Your task to perform on an android device: turn on bluetooth scan Image 0: 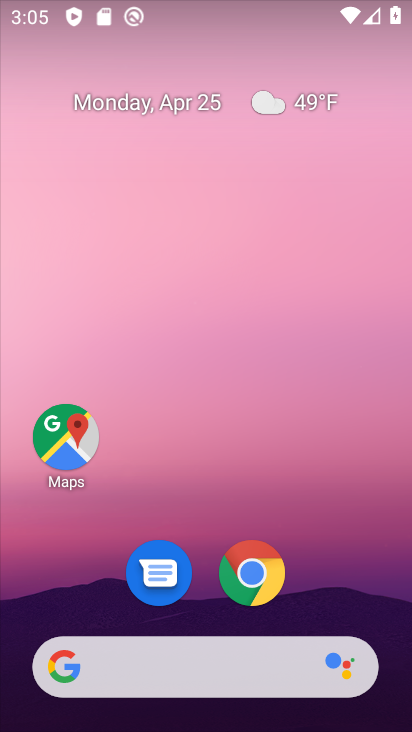
Step 0: drag from (332, 577) to (279, 12)
Your task to perform on an android device: turn on bluetooth scan Image 1: 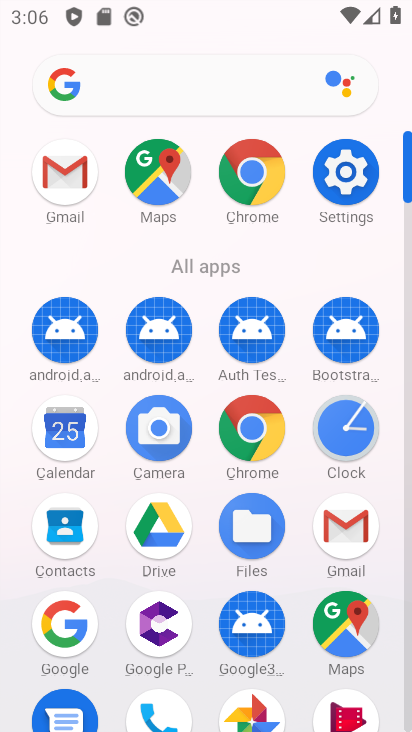
Step 1: click (346, 188)
Your task to perform on an android device: turn on bluetooth scan Image 2: 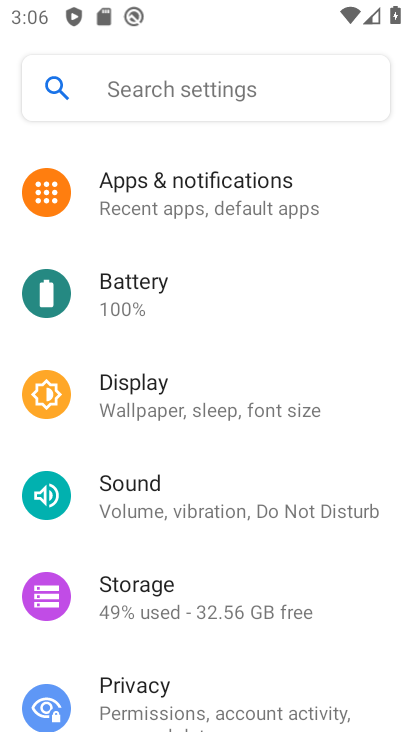
Step 2: drag from (269, 640) to (255, 142)
Your task to perform on an android device: turn on bluetooth scan Image 3: 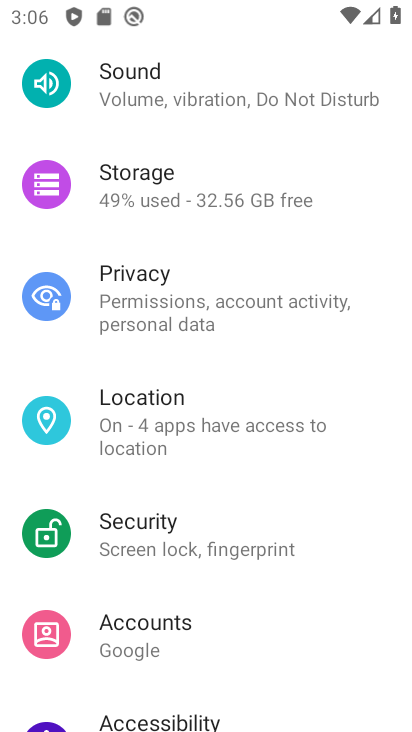
Step 3: click (122, 395)
Your task to perform on an android device: turn on bluetooth scan Image 4: 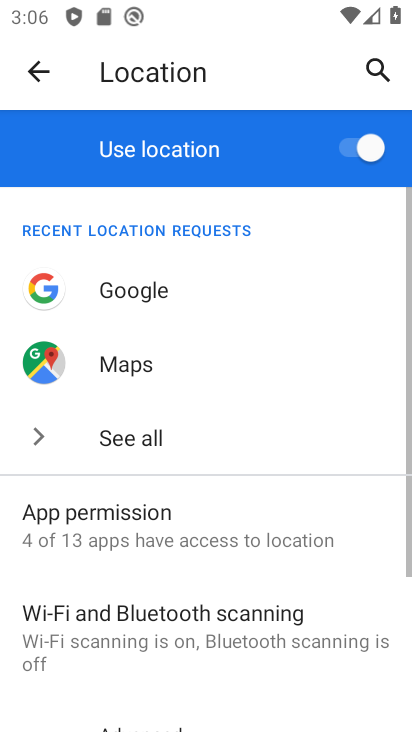
Step 4: drag from (153, 574) to (114, 138)
Your task to perform on an android device: turn on bluetooth scan Image 5: 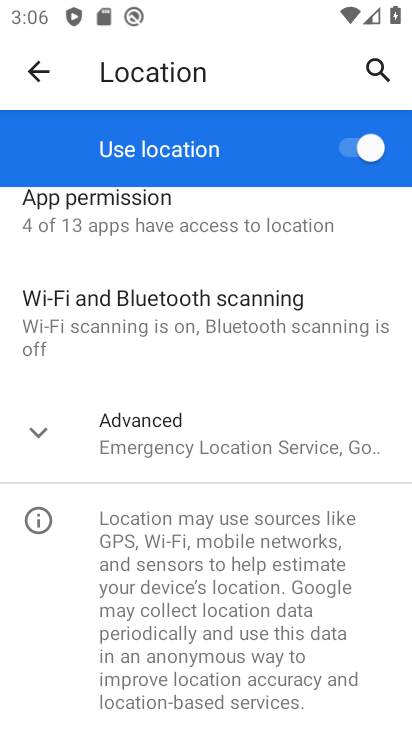
Step 5: click (109, 307)
Your task to perform on an android device: turn on bluetooth scan Image 6: 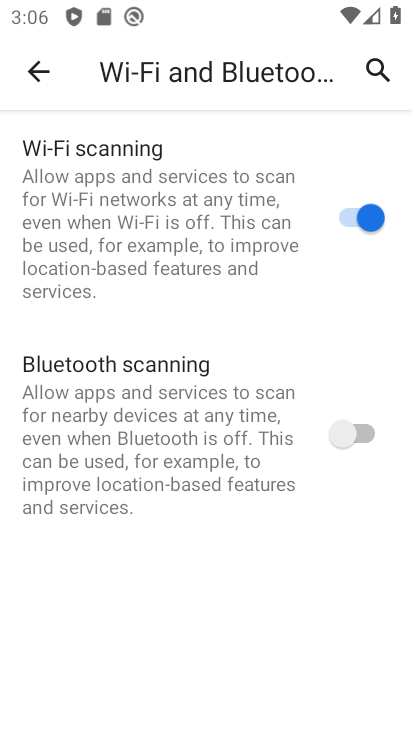
Step 6: click (332, 434)
Your task to perform on an android device: turn on bluetooth scan Image 7: 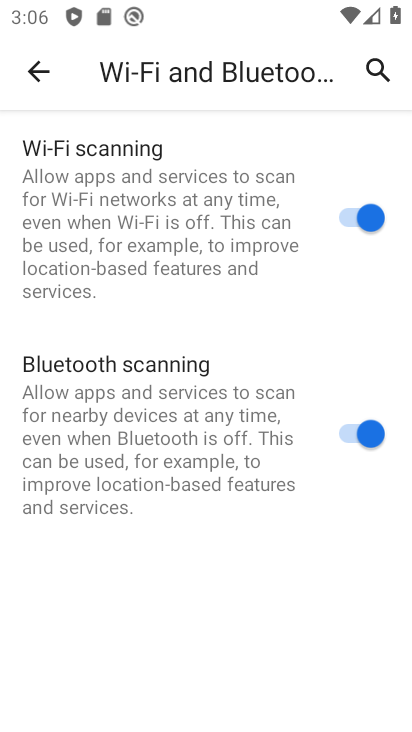
Step 7: task complete